Your task to perform on an android device: Set an alarm for 1pm Image 0: 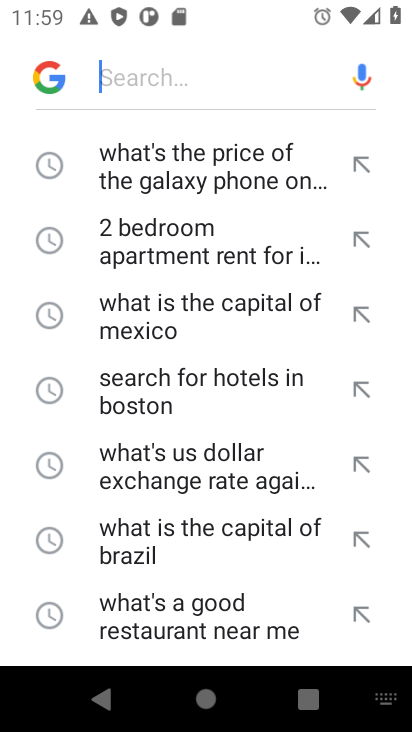
Step 0: press home button
Your task to perform on an android device: Set an alarm for 1pm Image 1: 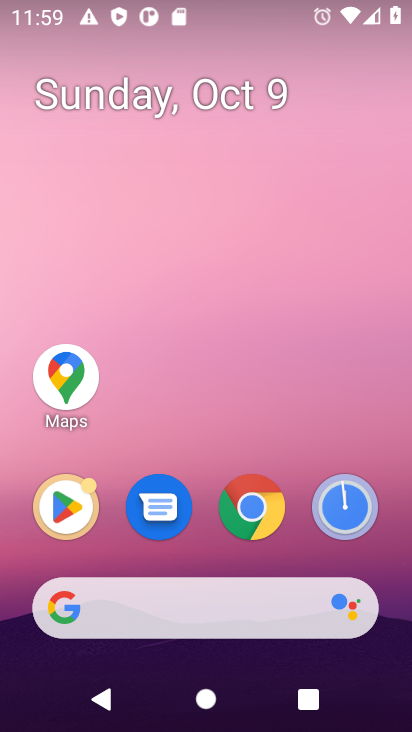
Step 1: drag from (382, 542) to (370, 69)
Your task to perform on an android device: Set an alarm for 1pm Image 2: 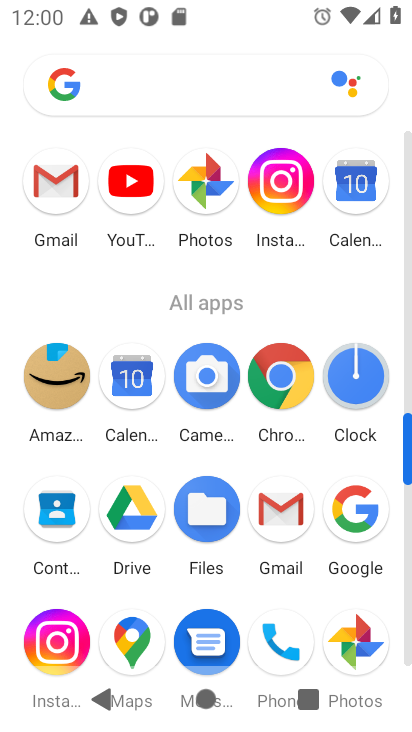
Step 2: click (361, 389)
Your task to perform on an android device: Set an alarm for 1pm Image 3: 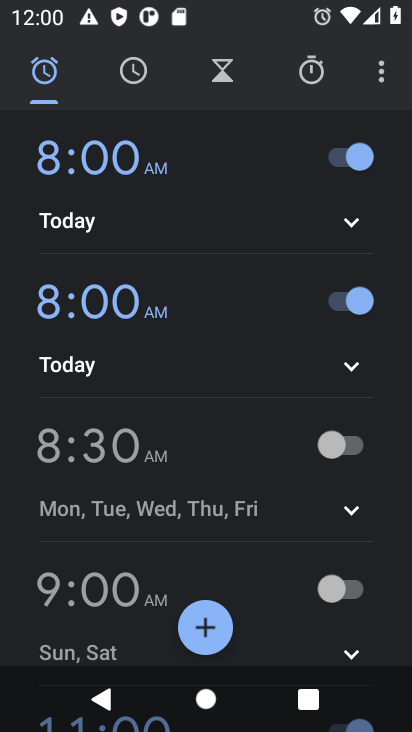
Step 3: click (201, 631)
Your task to perform on an android device: Set an alarm for 1pm Image 4: 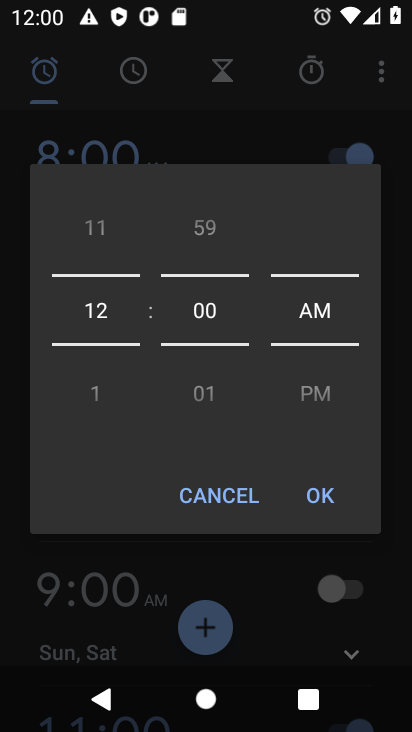
Step 4: drag from (98, 332) to (103, 219)
Your task to perform on an android device: Set an alarm for 1pm Image 5: 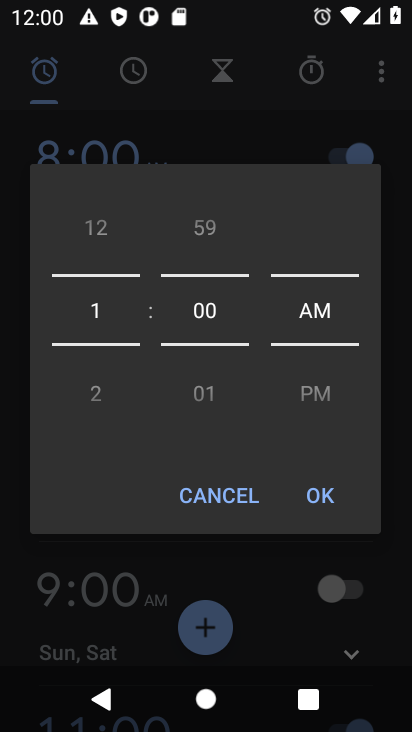
Step 5: drag from (318, 323) to (322, 201)
Your task to perform on an android device: Set an alarm for 1pm Image 6: 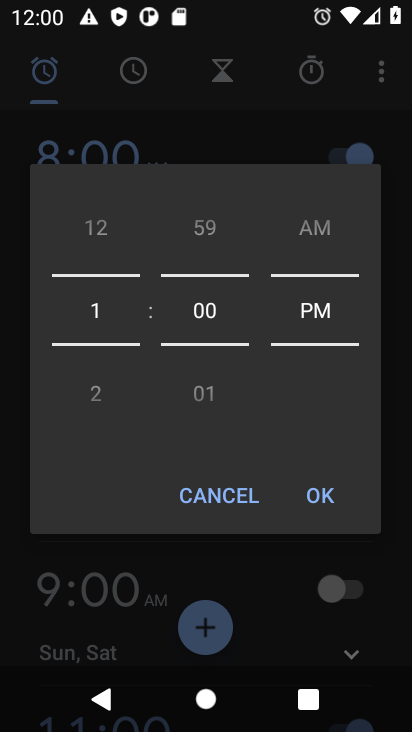
Step 6: click (325, 498)
Your task to perform on an android device: Set an alarm for 1pm Image 7: 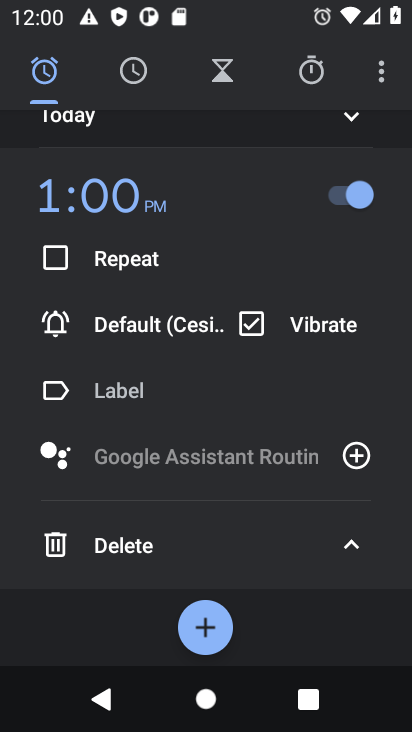
Step 7: task complete